Your task to perform on an android device: toggle notification dots Image 0: 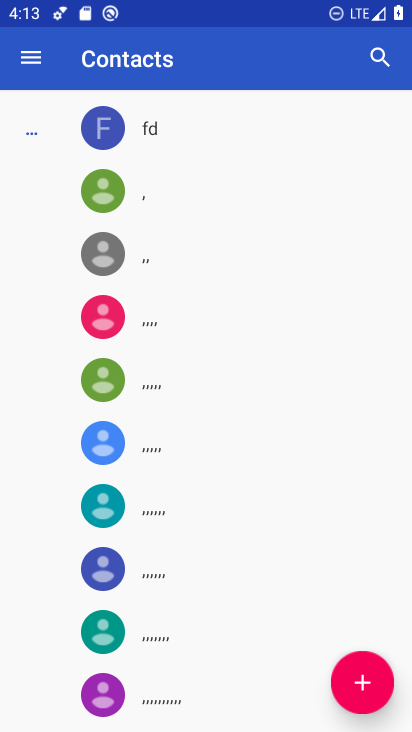
Step 0: press home button
Your task to perform on an android device: toggle notification dots Image 1: 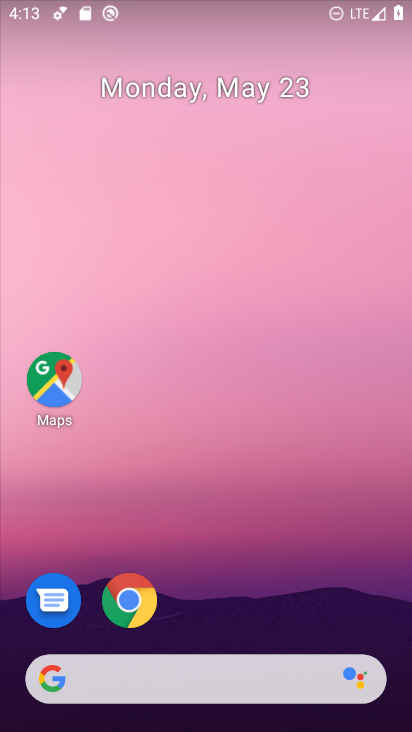
Step 1: drag from (294, 618) to (298, 0)
Your task to perform on an android device: toggle notification dots Image 2: 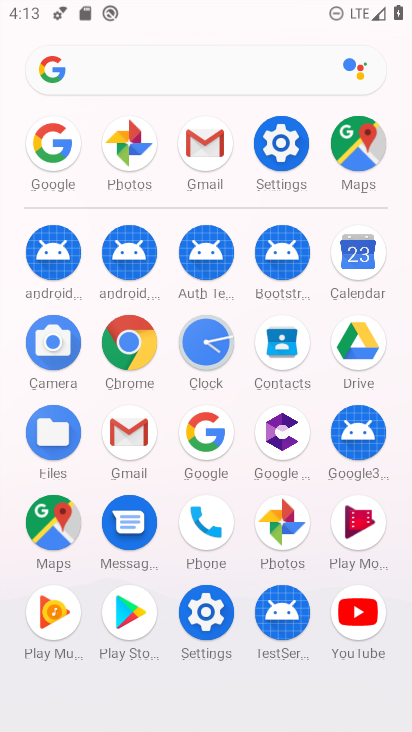
Step 2: click (283, 151)
Your task to perform on an android device: toggle notification dots Image 3: 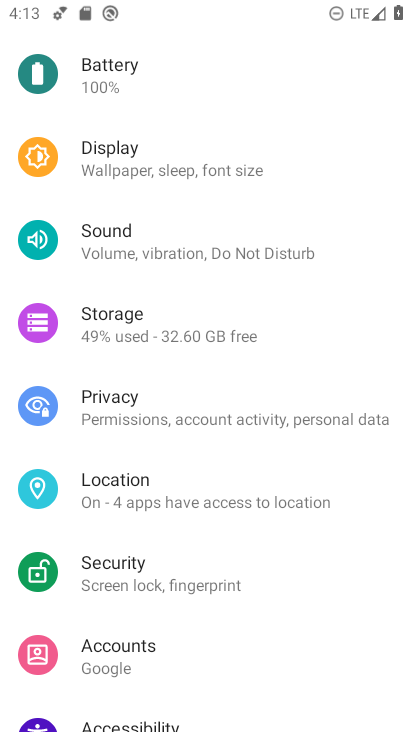
Step 3: drag from (314, 207) to (333, 463)
Your task to perform on an android device: toggle notification dots Image 4: 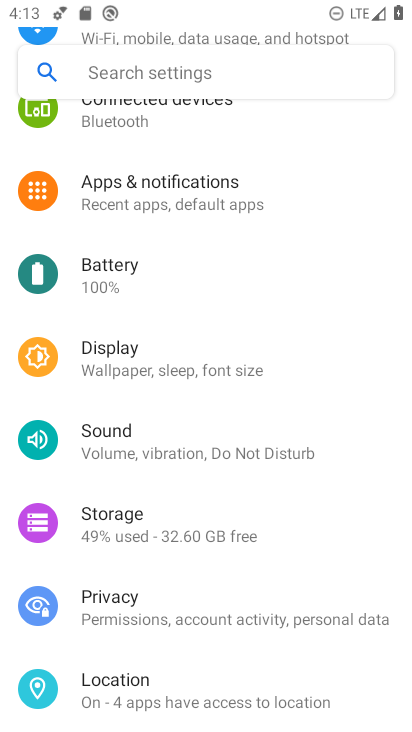
Step 4: click (168, 191)
Your task to perform on an android device: toggle notification dots Image 5: 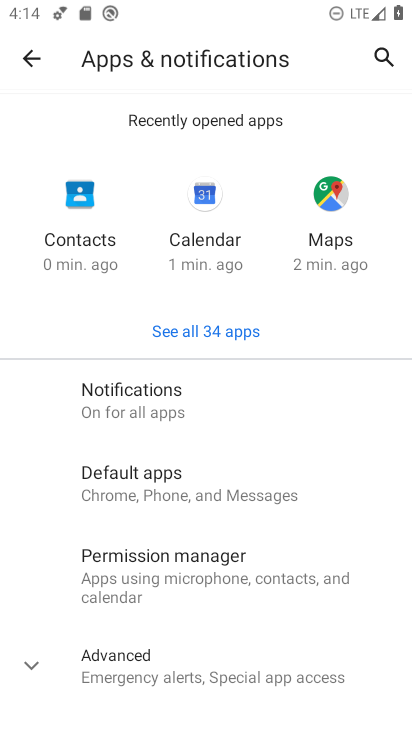
Step 5: click (104, 405)
Your task to perform on an android device: toggle notification dots Image 6: 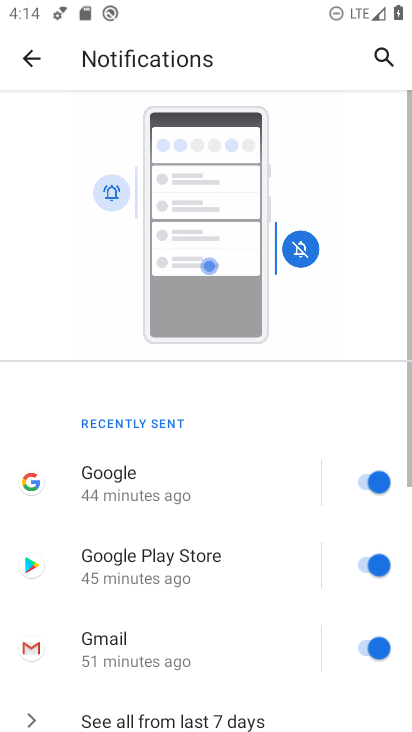
Step 6: drag from (189, 524) to (216, 69)
Your task to perform on an android device: toggle notification dots Image 7: 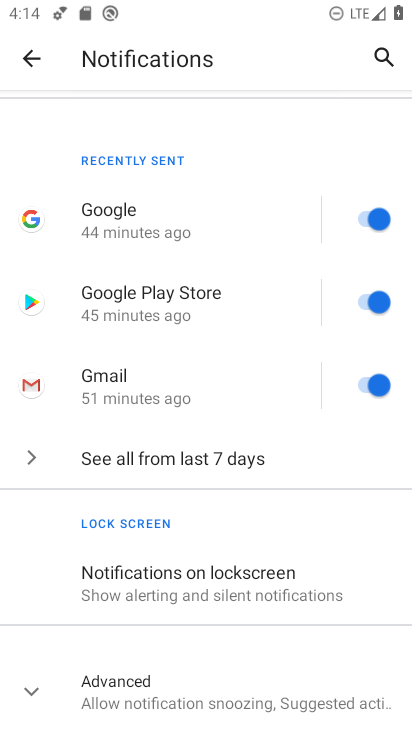
Step 7: drag from (157, 589) to (157, 278)
Your task to perform on an android device: toggle notification dots Image 8: 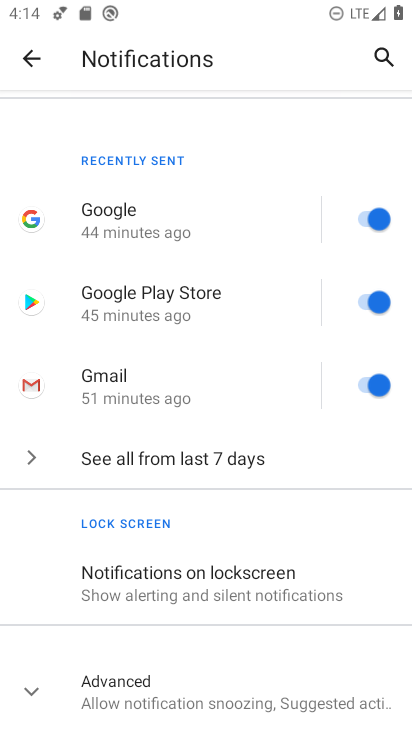
Step 8: click (30, 702)
Your task to perform on an android device: toggle notification dots Image 9: 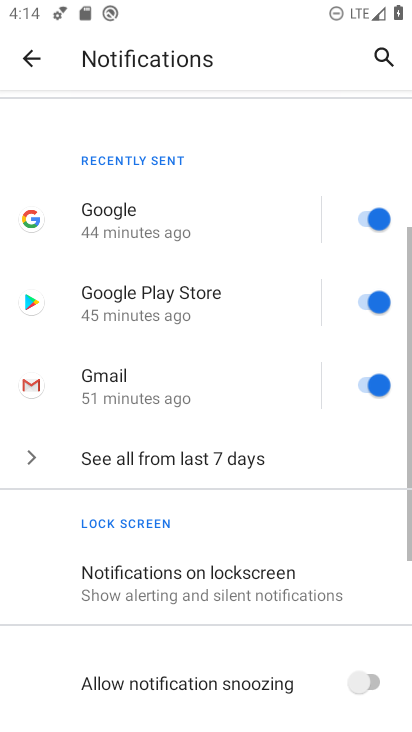
Step 9: drag from (191, 672) to (196, 245)
Your task to perform on an android device: toggle notification dots Image 10: 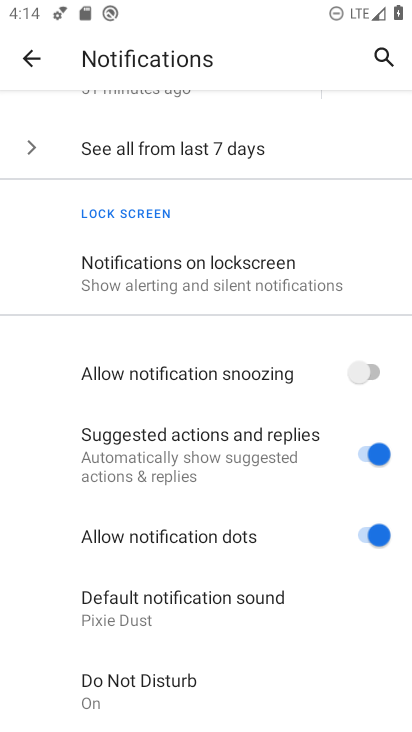
Step 10: click (390, 539)
Your task to perform on an android device: toggle notification dots Image 11: 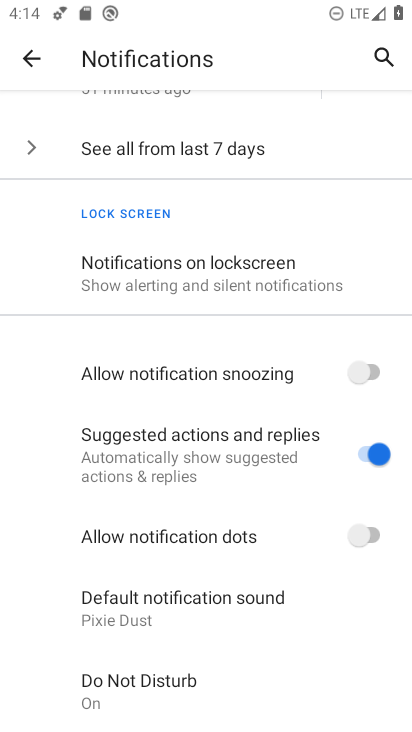
Step 11: task complete